Your task to perform on an android device: open chrome privacy settings Image 0: 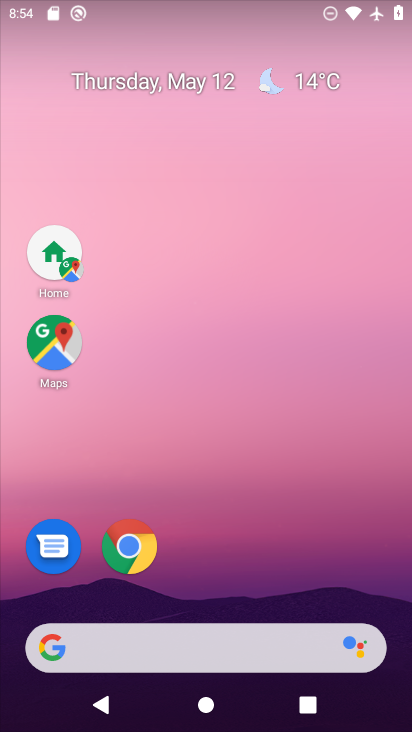
Step 0: click (125, 555)
Your task to perform on an android device: open chrome privacy settings Image 1: 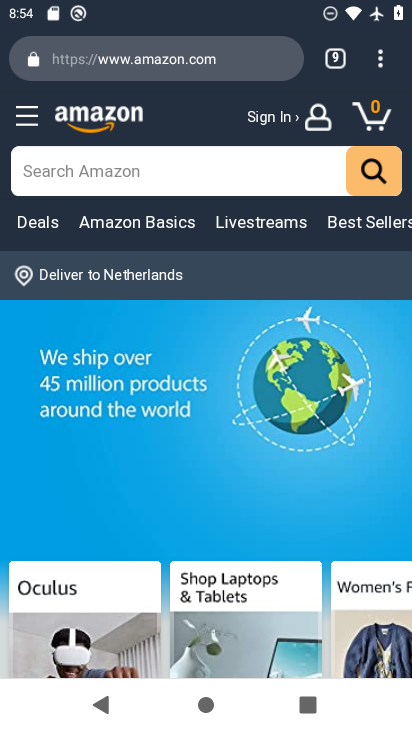
Step 1: drag from (378, 66) to (252, 557)
Your task to perform on an android device: open chrome privacy settings Image 2: 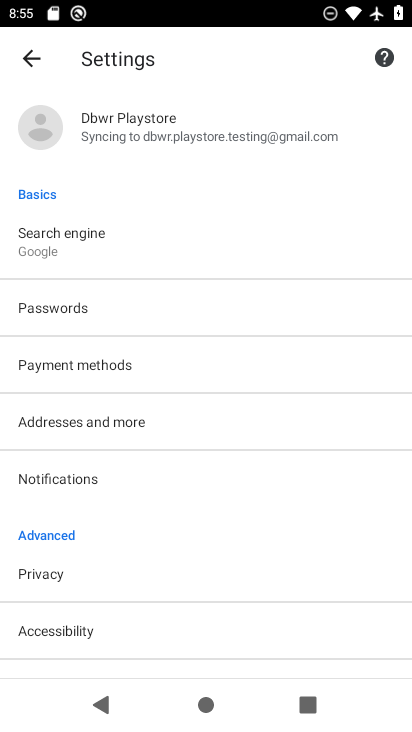
Step 2: click (43, 572)
Your task to perform on an android device: open chrome privacy settings Image 3: 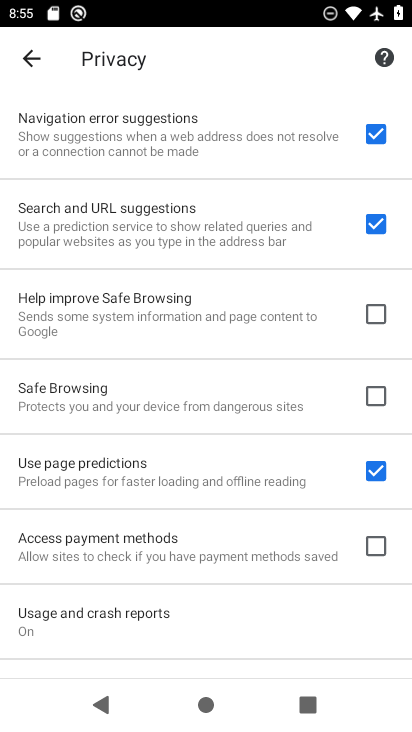
Step 3: task complete